Your task to perform on an android device: delete location history Image 0: 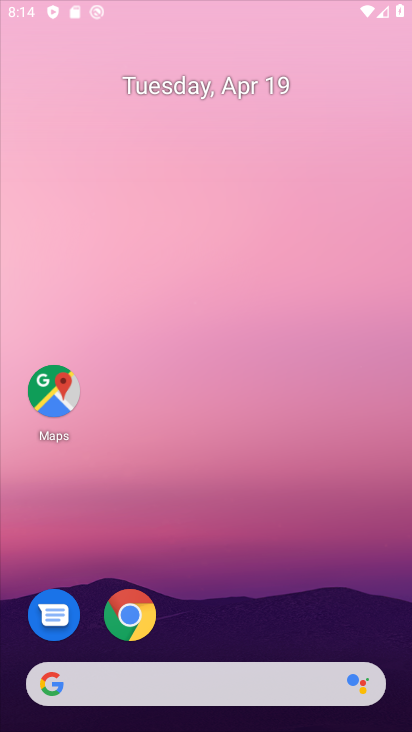
Step 0: drag from (232, 344) to (213, 27)
Your task to perform on an android device: delete location history Image 1: 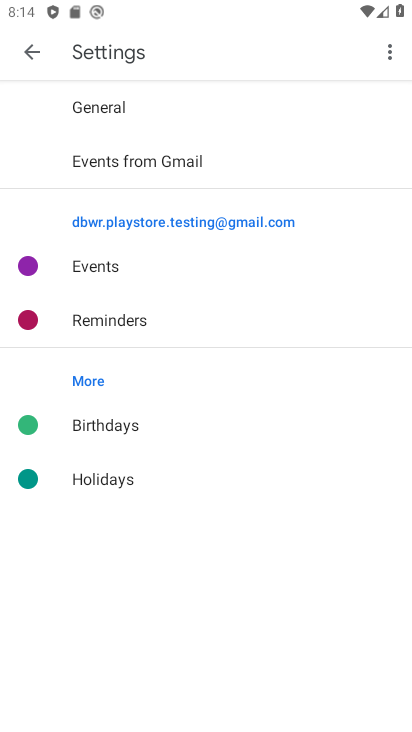
Step 1: press back button
Your task to perform on an android device: delete location history Image 2: 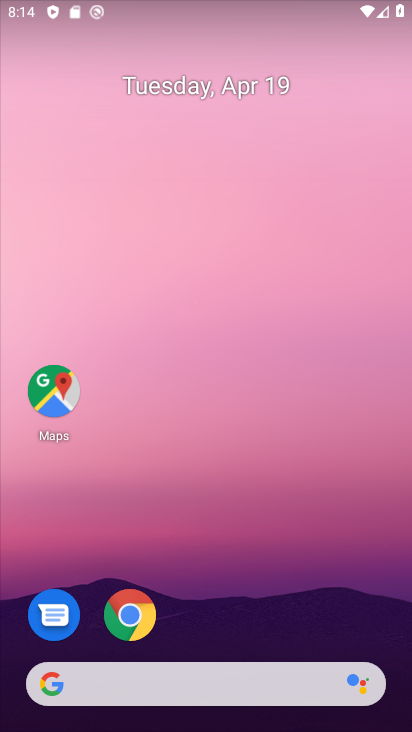
Step 2: drag from (335, 574) to (269, 6)
Your task to perform on an android device: delete location history Image 3: 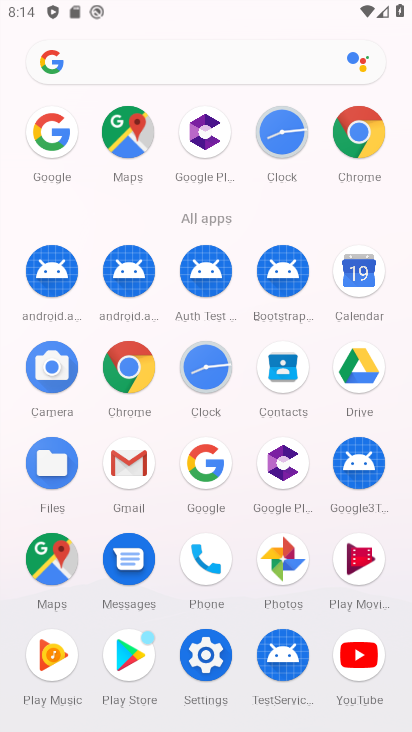
Step 3: drag from (22, 586) to (14, 284)
Your task to perform on an android device: delete location history Image 4: 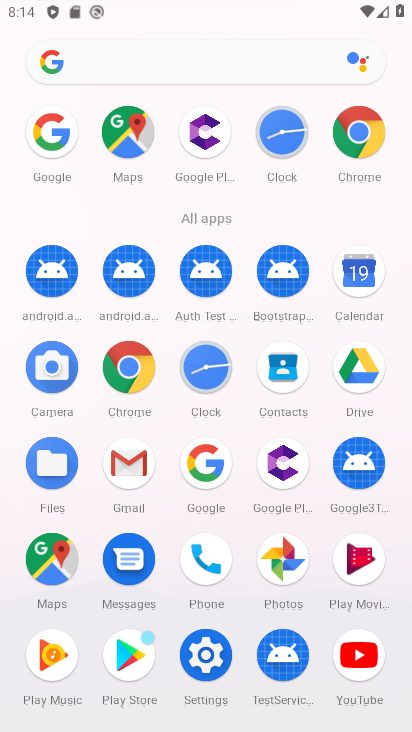
Step 4: click (205, 650)
Your task to perform on an android device: delete location history Image 5: 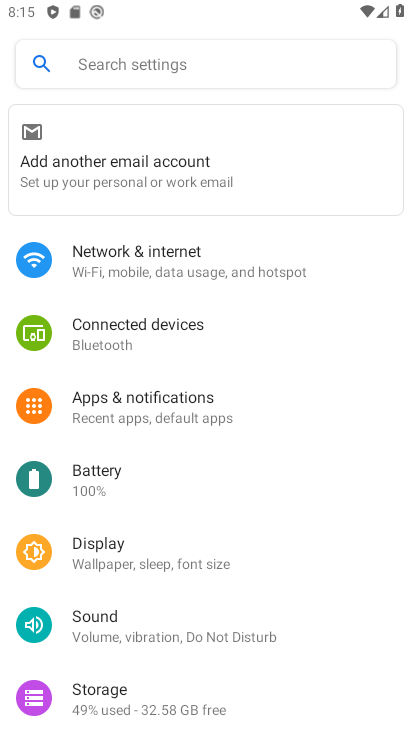
Step 5: drag from (316, 606) to (331, 197)
Your task to perform on an android device: delete location history Image 6: 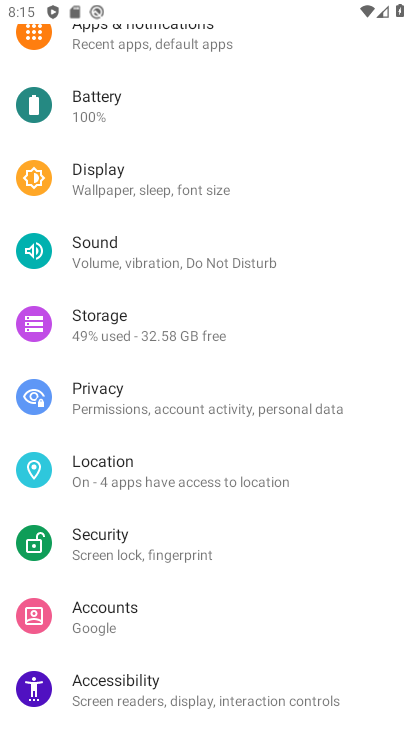
Step 6: click (181, 466)
Your task to perform on an android device: delete location history Image 7: 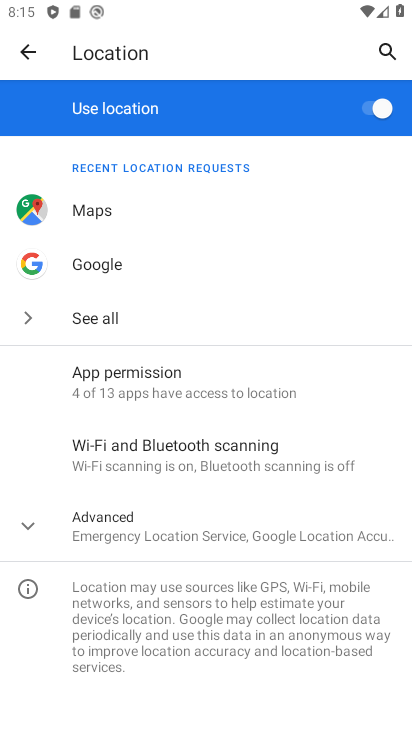
Step 7: click (202, 512)
Your task to perform on an android device: delete location history Image 8: 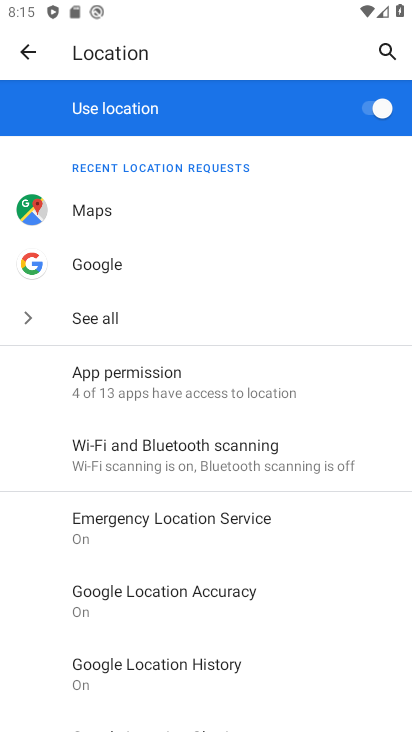
Step 8: drag from (294, 542) to (285, 196)
Your task to perform on an android device: delete location history Image 9: 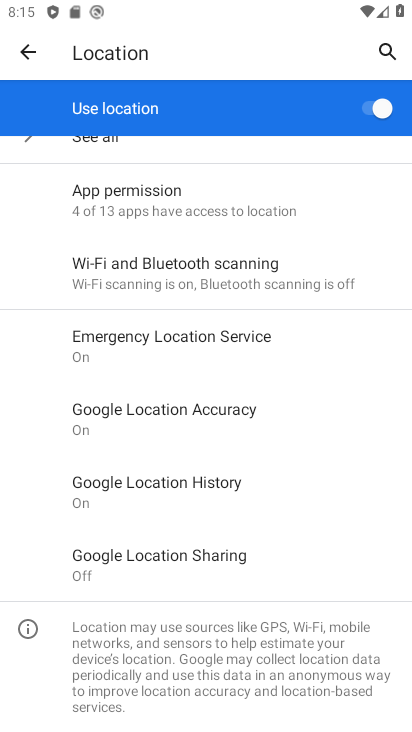
Step 9: click (234, 493)
Your task to perform on an android device: delete location history Image 10: 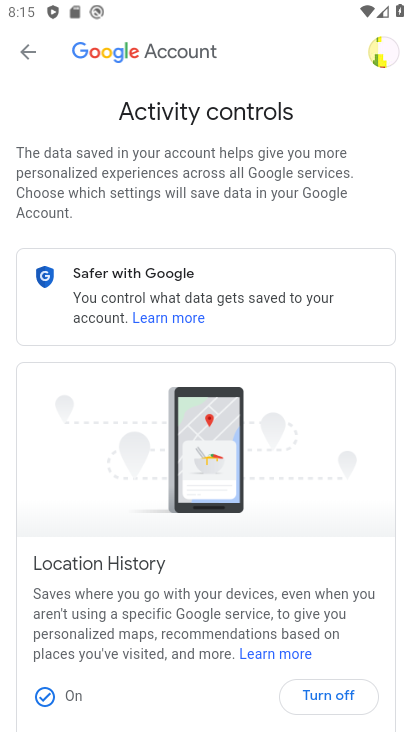
Step 10: drag from (267, 182) to (276, 93)
Your task to perform on an android device: delete location history Image 11: 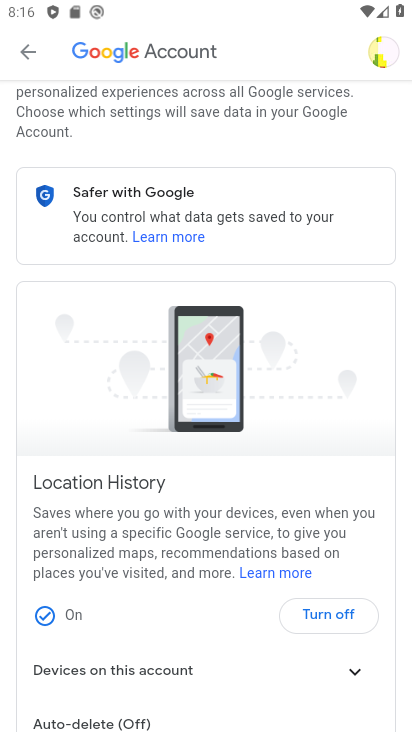
Step 11: drag from (226, 478) to (249, 120)
Your task to perform on an android device: delete location history Image 12: 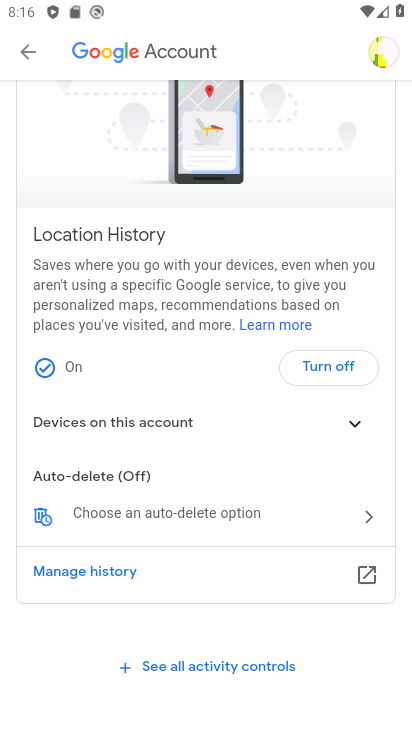
Step 12: drag from (94, 532) to (125, 241)
Your task to perform on an android device: delete location history Image 13: 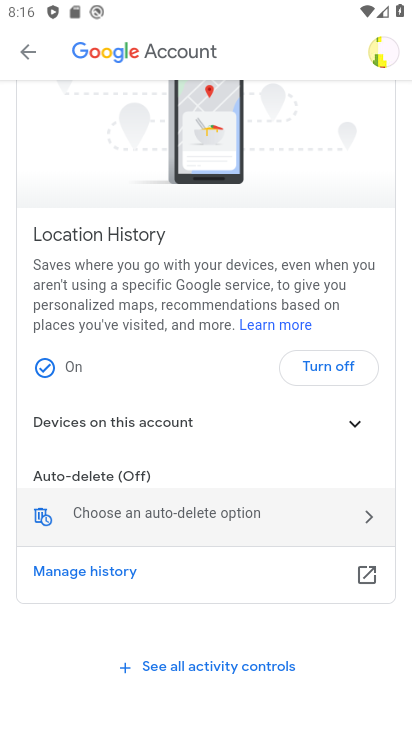
Step 13: click (52, 507)
Your task to perform on an android device: delete location history Image 14: 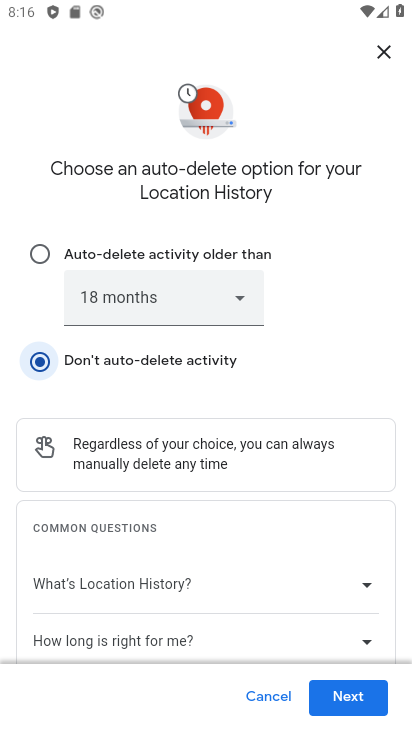
Step 14: click (366, 695)
Your task to perform on an android device: delete location history Image 15: 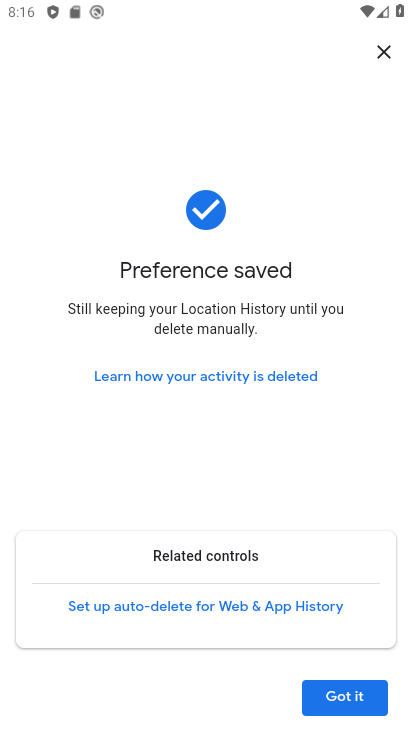
Step 15: click (369, 700)
Your task to perform on an android device: delete location history Image 16: 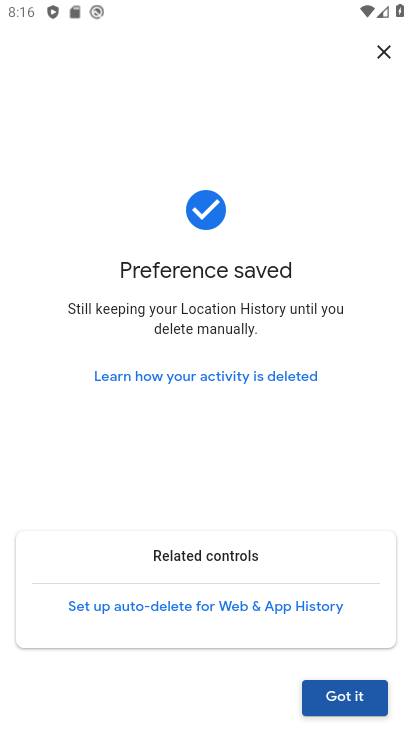
Step 16: task complete